Your task to perform on an android device: open app "Gboard" Image 0: 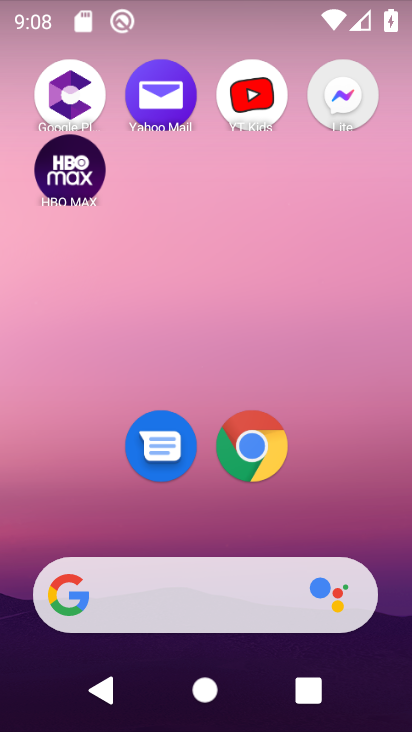
Step 0: drag from (212, 512) to (212, 150)
Your task to perform on an android device: open app "Gboard" Image 1: 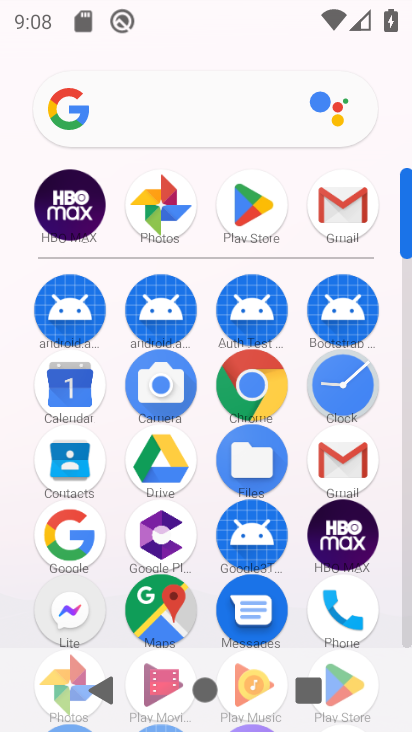
Step 1: click (247, 183)
Your task to perform on an android device: open app "Gboard" Image 2: 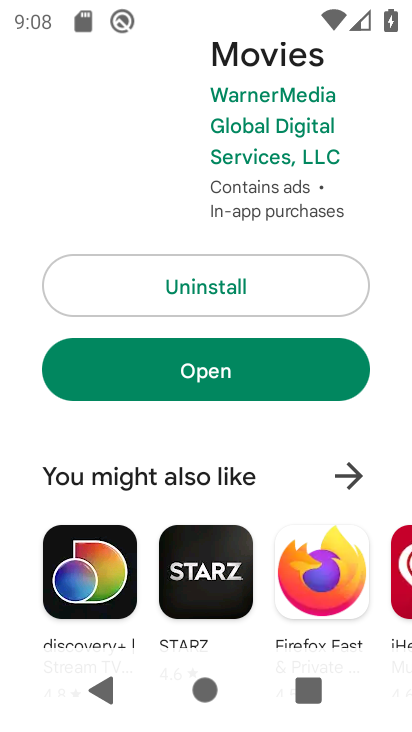
Step 2: drag from (232, 170) to (270, 571)
Your task to perform on an android device: open app "Gboard" Image 3: 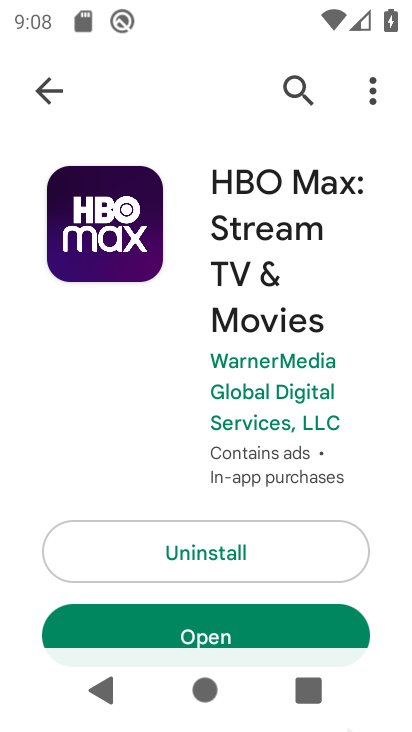
Step 3: click (293, 94)
Your task to perform on an android device: open app "Gboard" Image 4: 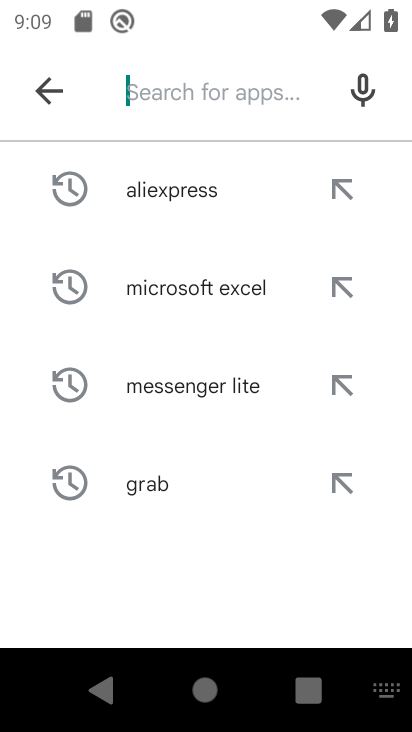
Step 4: type "Gboard"
Your task to perform on an android device: open app "Gboard" Image 5: 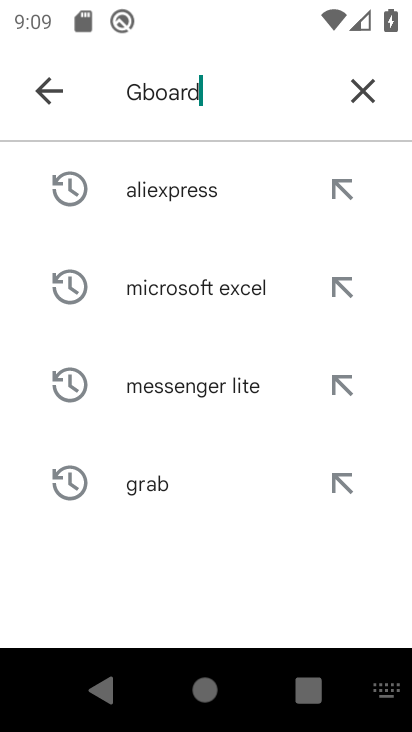
Step 5: type ""
Your task to perform on an android device: open app "Gboard" Image 6: 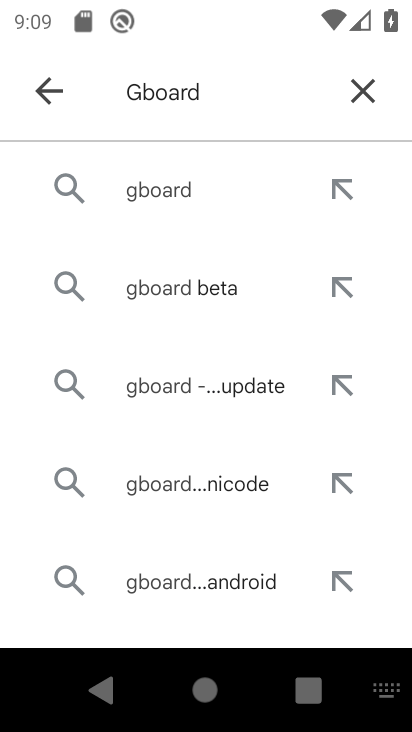
Step 6: click (137, 175)
Your task to perform on an android device: open app "Gboard" Image 7: 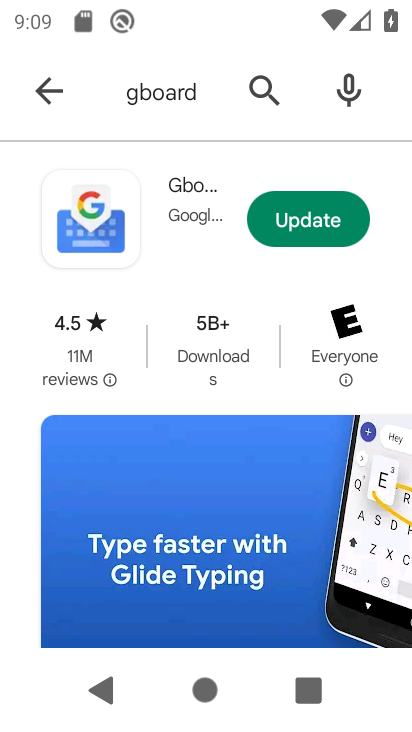
Step 7: click (174, 180)
Your task to perform on an android device: open app "Gboard" Image 8: 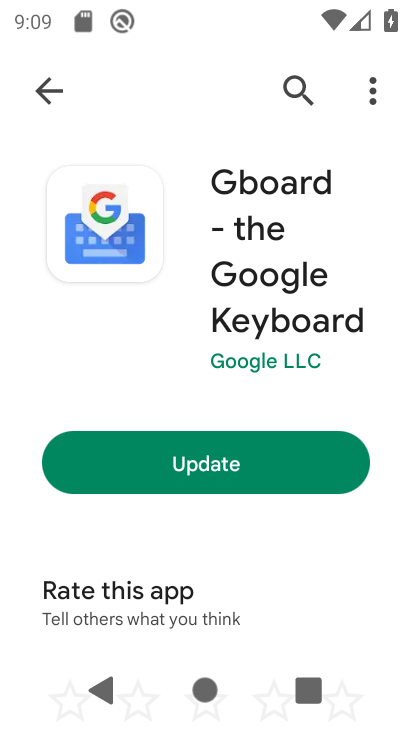
Step 8: click (234, 465)
Your task to perform on an android device: open app "Gboard" Image 9: 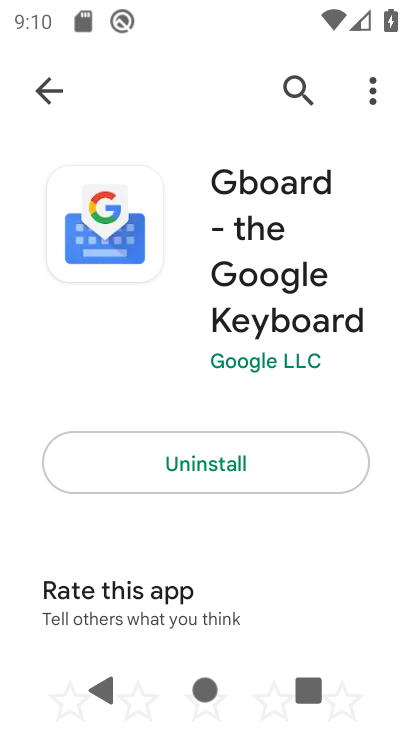
Step 9: task complete